Your task to perform on an android device: see creations saved in the google photos Image 0: 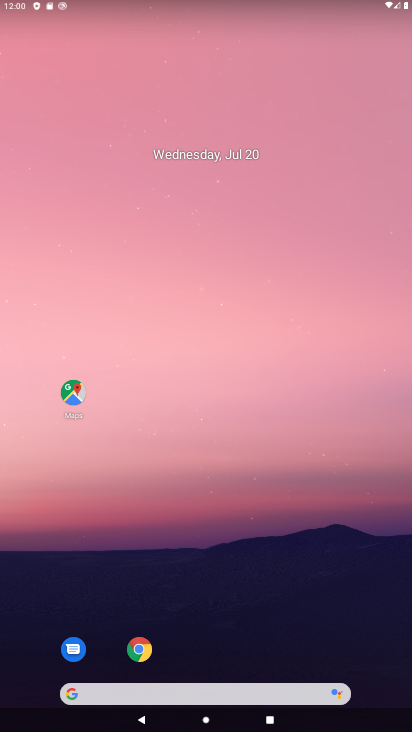
Step 0: drag from (254, 700) to (181, 563)
Your task to perform on an android device: see creations saved in the google photos Image 1: 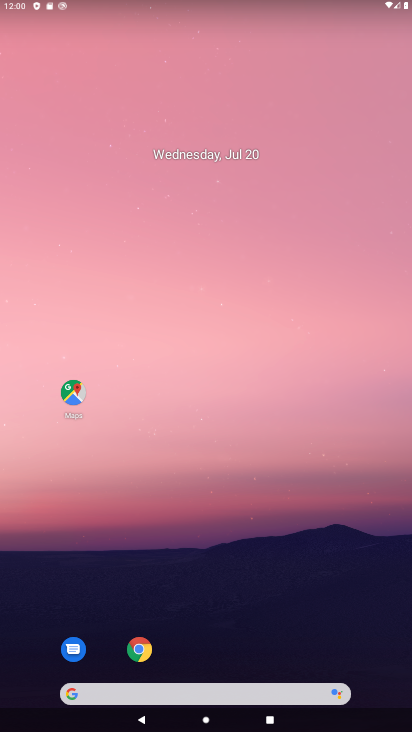
Step 1: drag from (217, 699) to (171, 488)
Your task to perform on an android device: see creations saved in the google photos Image 2: 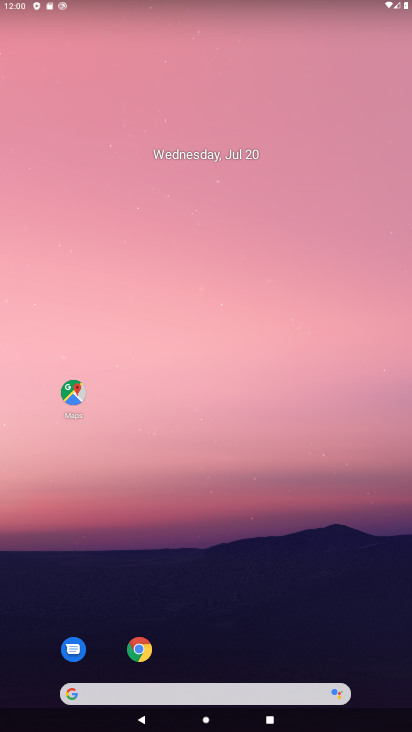
Step 2: drag from (231, 716) to (384, 16)
Your task to perform on an android device: see creations saved in the google photos Image 3: 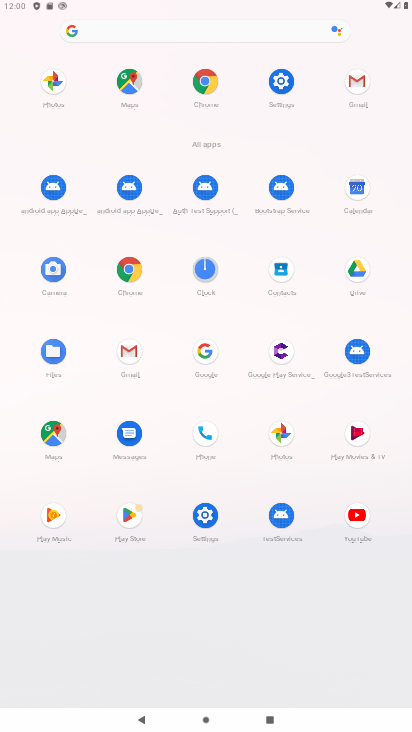
Step 3: click (276, 444)
Your task to perform on an android device: see creations saved in the google photos Image 4: 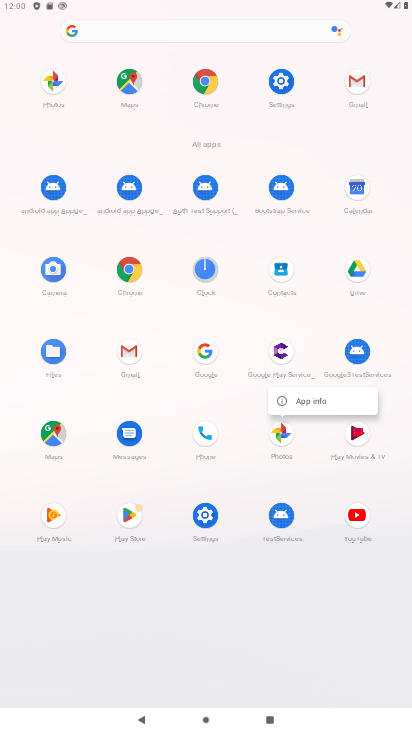
Step 4: click (276, 443)
Your task to perform on an android device: see creations saved in the google photos Image 5: 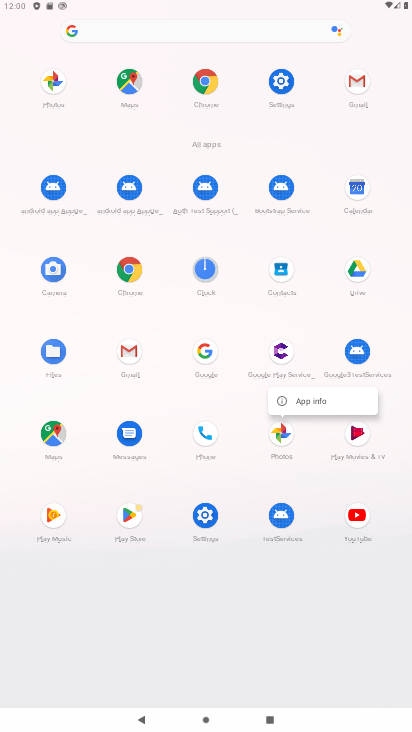
Step 5: click (276, 443)
Your task to perform on an android device: see creations saved in the google photos Image 6: 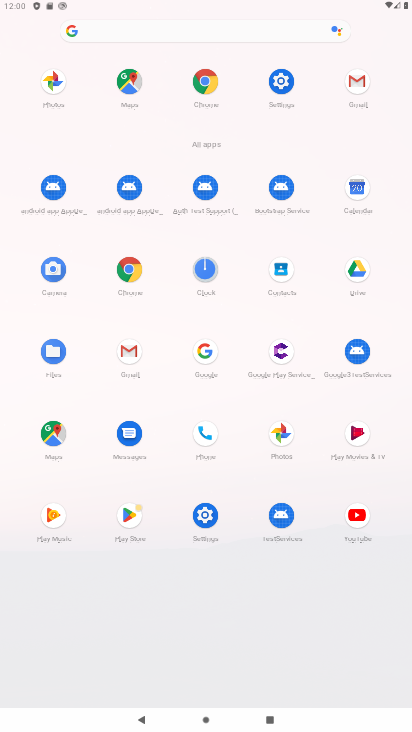
Step 6: click (276, 443)
Your task to perform on an android device: see creations saved in the google photos Image 7: 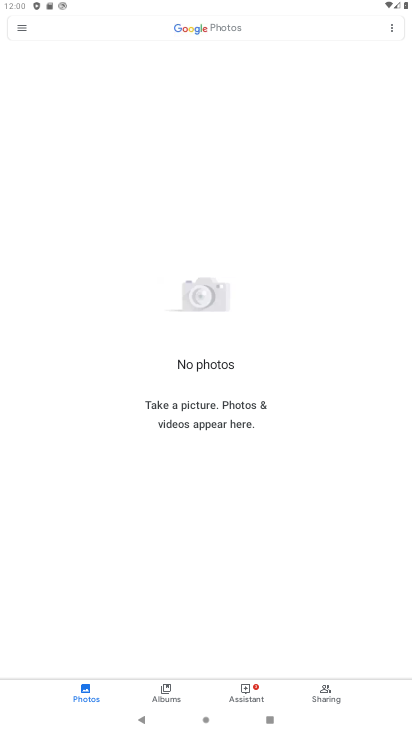
Step 7: click (208, 27)
Your task to perform on an android device: see creations saved in the google photos Image 8: 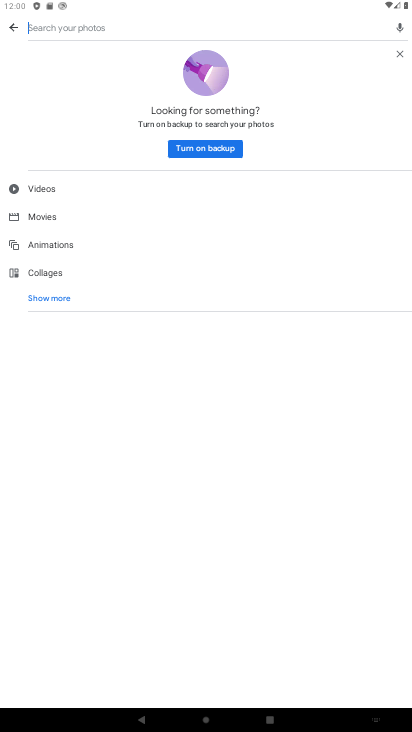
Step 8: click (52, 296)
Your task to perform on an android device: see creations saved in the google photos Image 9: 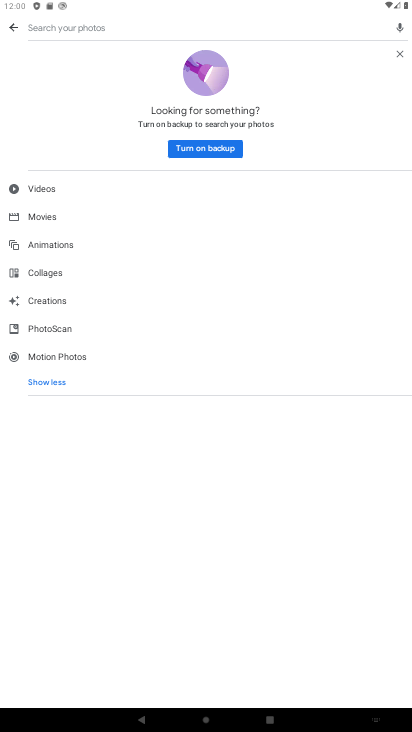
Step 9: click (48, 290)
Your task to perform on an android device: see creations saved in the google photos Image 10: 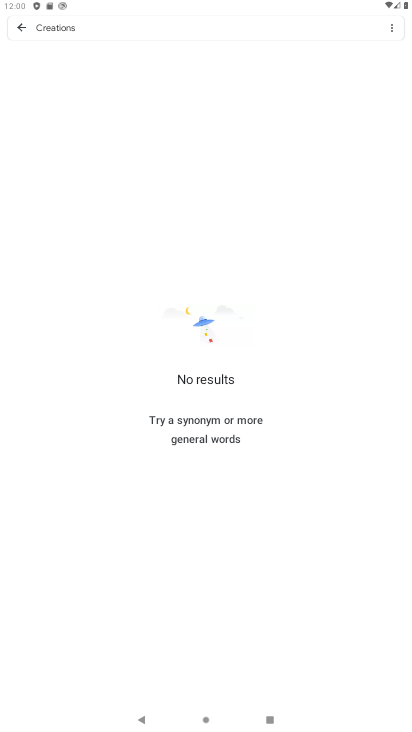
Step 10: task complete